Your task to perform on an android device: Go to Wikipedia Image 0: 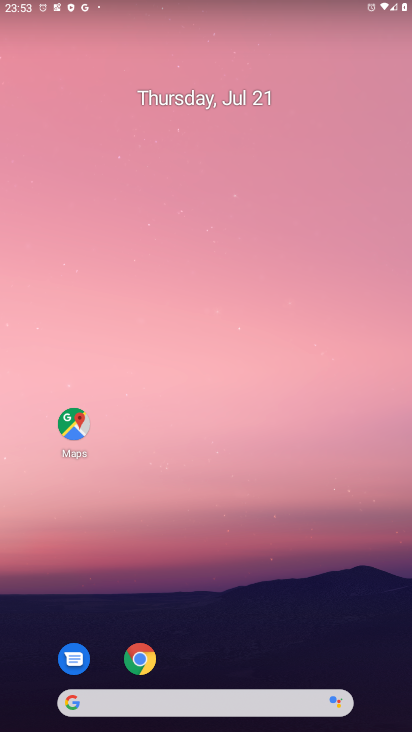
Step 0: click (140, 657)
Your task to perform on an android device: Go to Wikipedia Image 1: 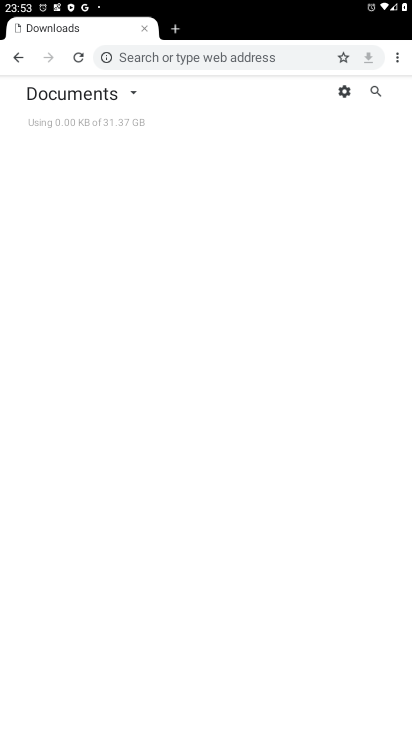
Step 1: click (298, 61)
Your task to perform on an android device: Go to Wikipedia Image 2: 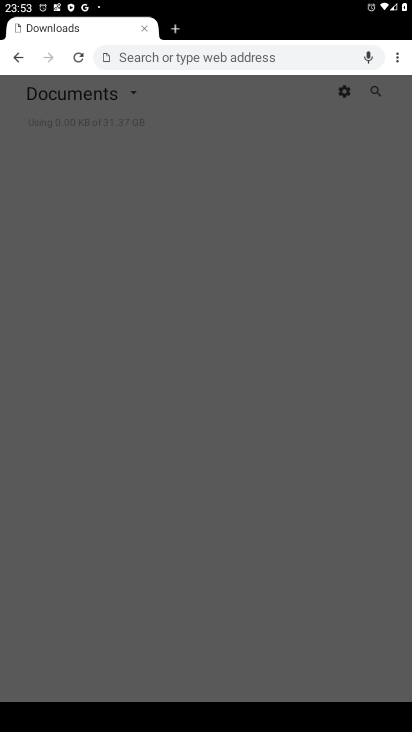
Step 2: type "Wikipedia"
Your task to perform on an android device: Go to Wikipedia Image 3: 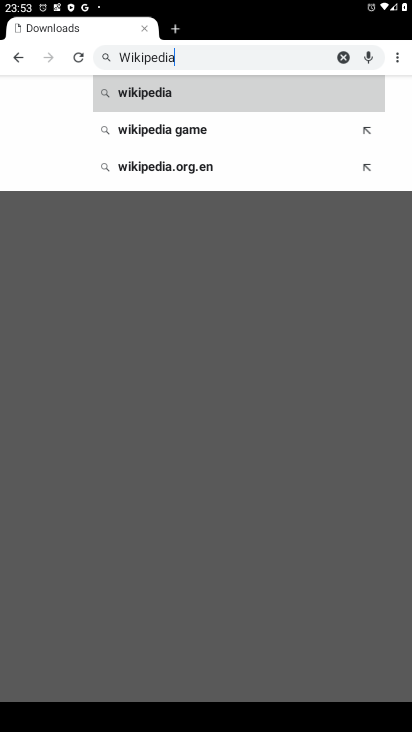
Step 3: click (166, 95)
Your task to perform on an android device: Go to Wikipedia Image 4: 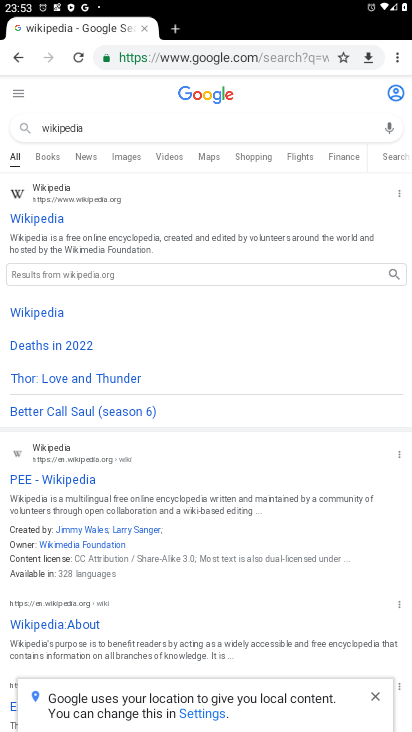
Step 4: click (54, 220)
Your task to perform on an android device: Go to Wikipedia Image 5: 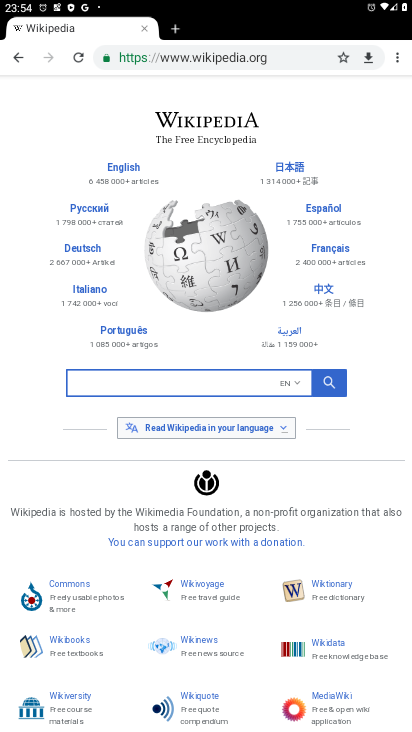
Step 5: task complete